Your task to perform on an android device: set default search engine in the chrome app Image 0: 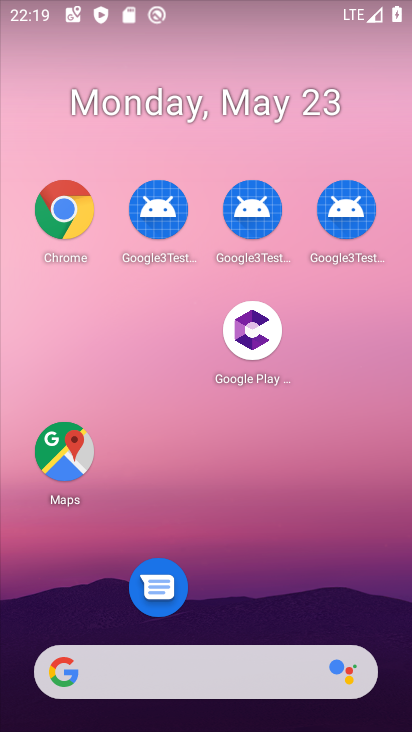
Step 0: click (52, 200)
Your task to perform on an android device: set default search engine in the chrome app Image 1: 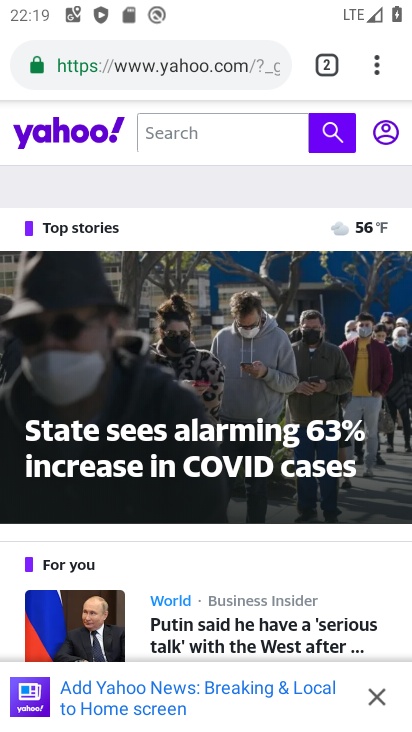
Step 1: click (380, 76)
Your task to perform on an android device: set default search engine in the chrome app Image 2: 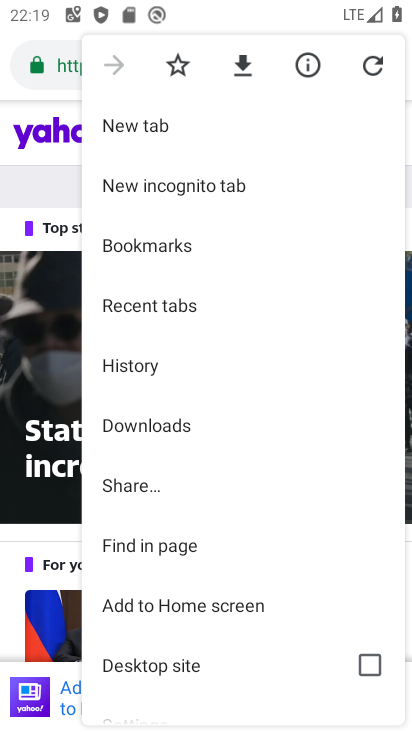
Step 2: drag from (162, 625) to (280, 182)
Your task to perform on an android device: set default search engine in the chrome app Image 3: 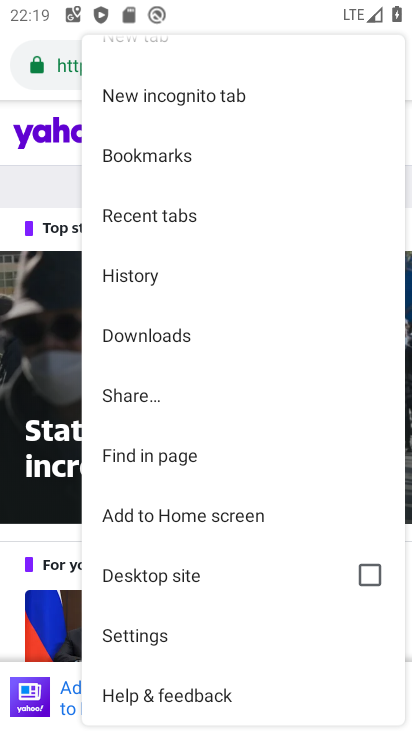
Step 3: click (177, 637)
Your task to perform on an android device: set default search engine in the chrome app Image 4: 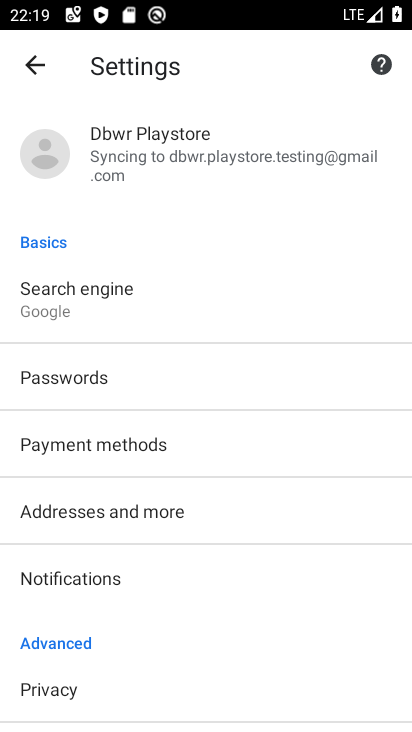
Step 4: click (145, 296)
Your task to perform on an android device: set default search engine in the chrome app Image 5: 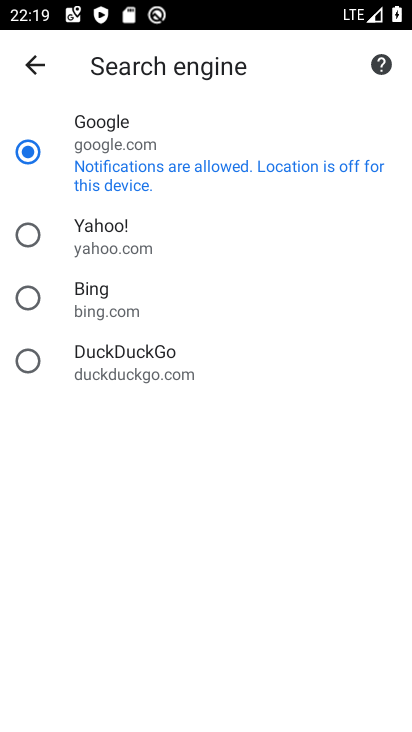
Step 5: click (33, 291)
Your task to perform on an android device: set default search engine in the chrome app Image 6: 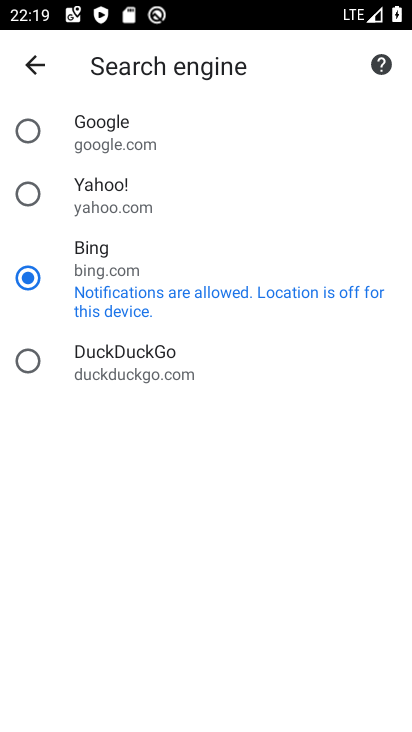
Step 6: task complete